Your task to perform on an android device: turn on data saver in the chrome app Image 0: 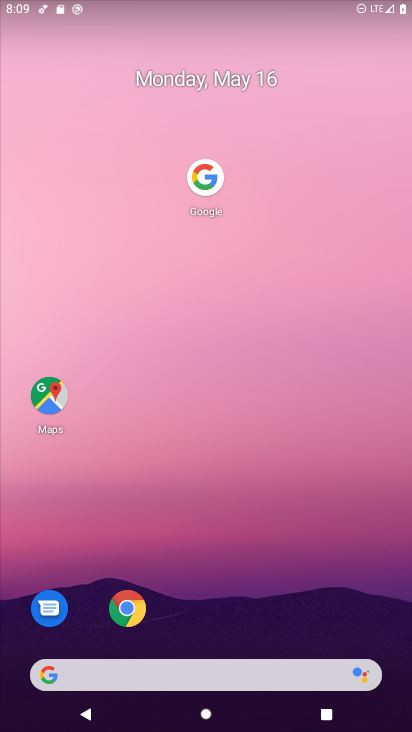
Step 0: click (129, 608)
Your task to perform on an android device: turn on data saver in the chrome app Image 1: 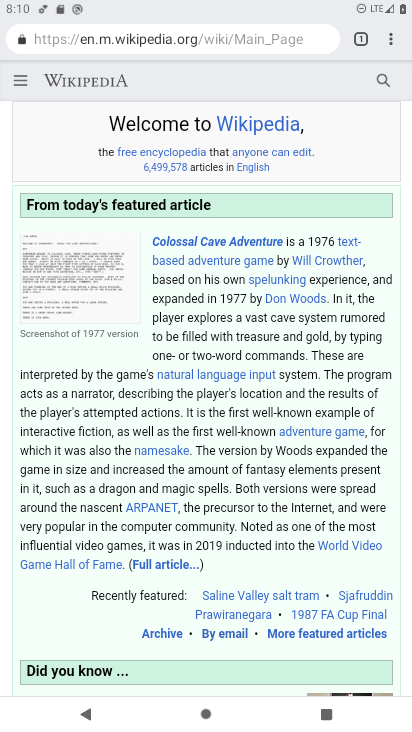
Step 1: click (390, 39)
Your task to perform on an android device: turn on data saver in the chrome app Image 2: 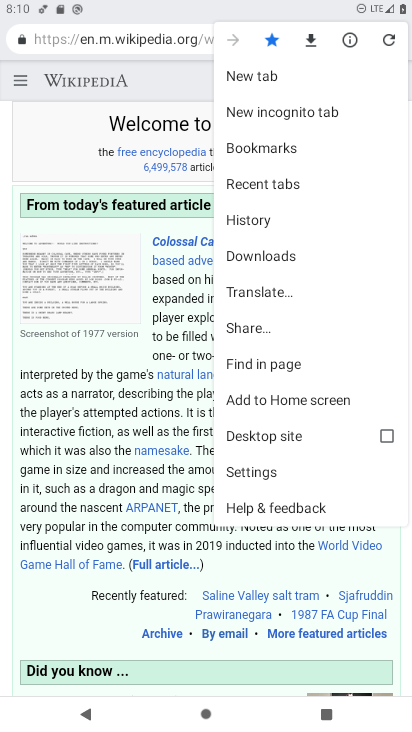
Step 2: click (255, 471)
Your task to perform on an android device: turn on data saver in the chrome app Image 3: 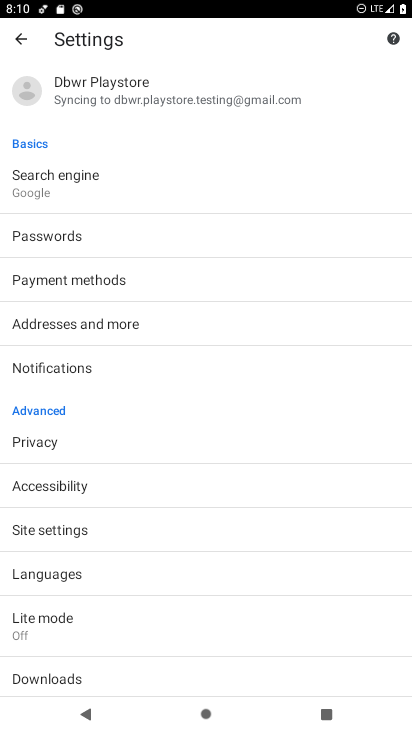
Step 3: click (47, 615)
Your task to perform on an android device: turn on data saver in the chrome app Image 4: 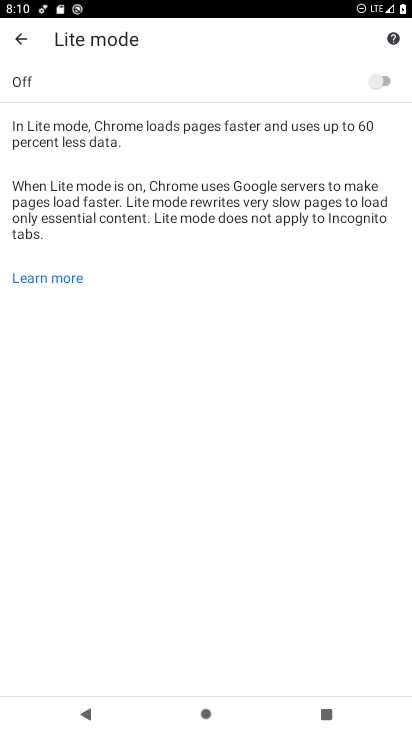
Step 4: click (380, 87)
Your task to perform on an android device: turn on data saver in the chrome app Image 5: 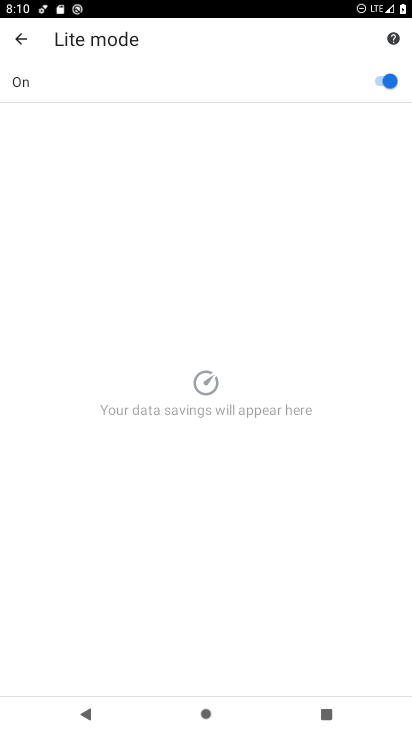
Step 5: task complete